Your task to perform on an android device: change the clock style Image 0: 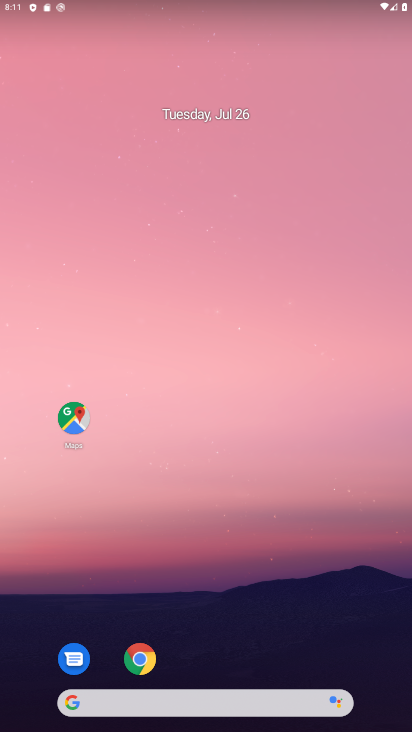
Step 0: drag from (372, 677) to (314, 115)
Your task to perform on an android device: change the clock style Image 1: 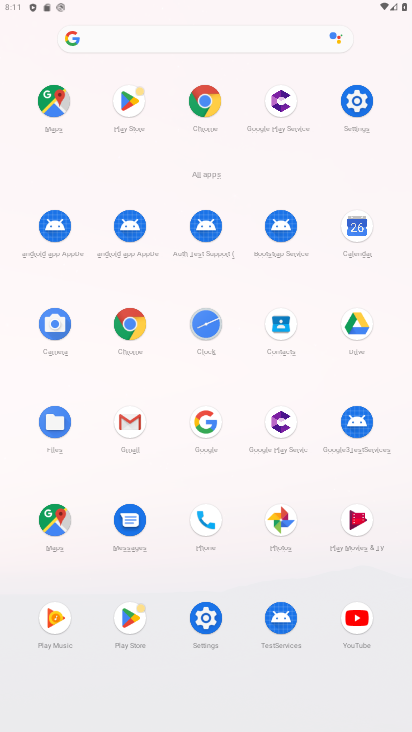
Step 1: click (203, 324)
Your task to perform on an android device: change the clock style Image 2: 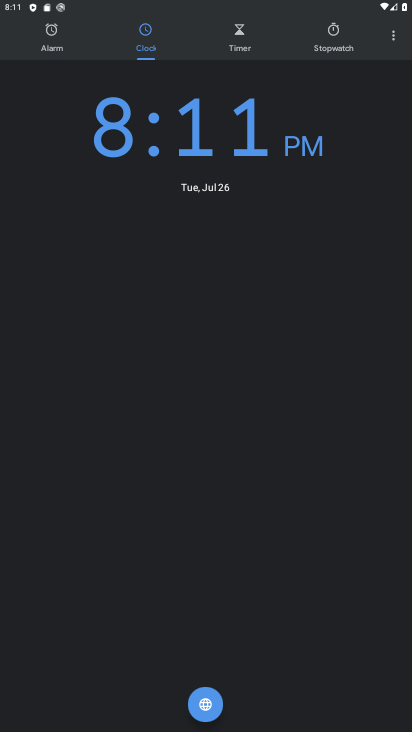
Step 2: click (393, 43)
Your task to perform on an android device: change the clock style Image 3: 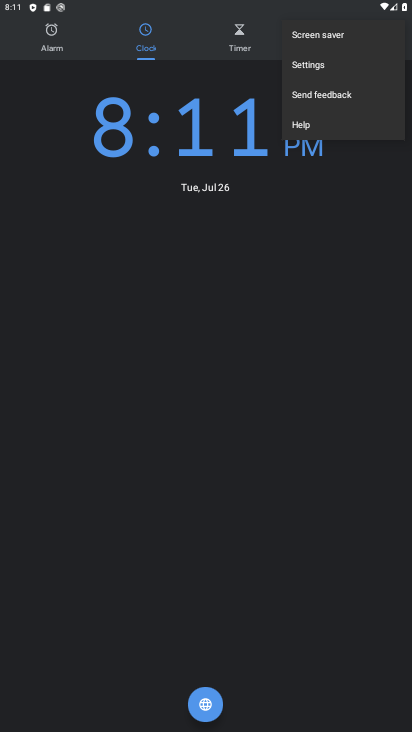
Step 3: click (303, 68)
Your task to perform on an android device: change the clock style Image 4: 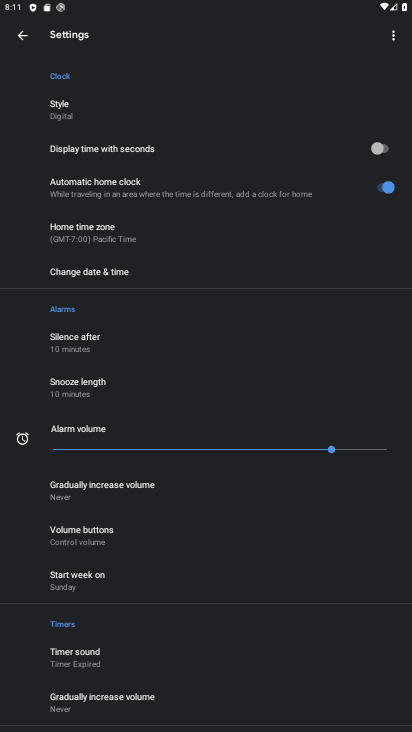
Step 4: click (58, 108)
Your task to perform on an android device: change the clock style Image 5: 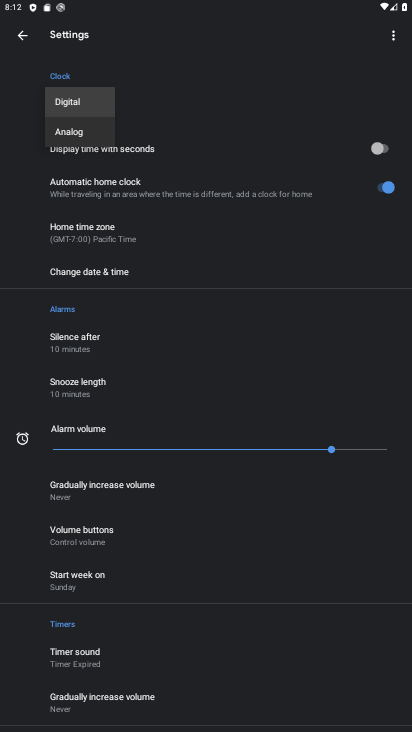
Step 5: click (73, 131)
Your task to perform on an android device: change the clock style Image 6: 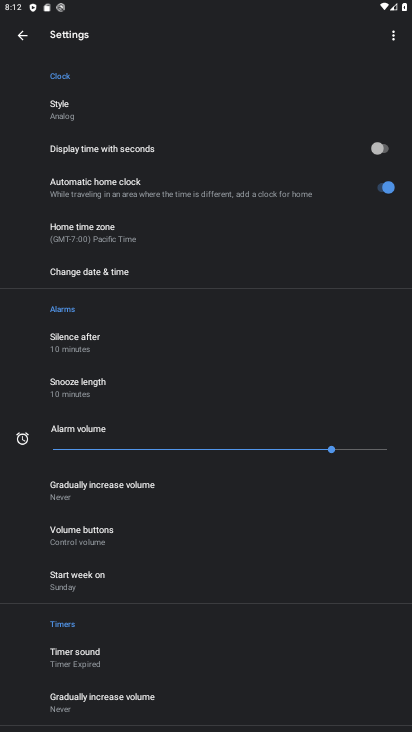
Step 6: task complete